Your task to perform on an android device: allow notifications from all sites in the chrome app Image 0: 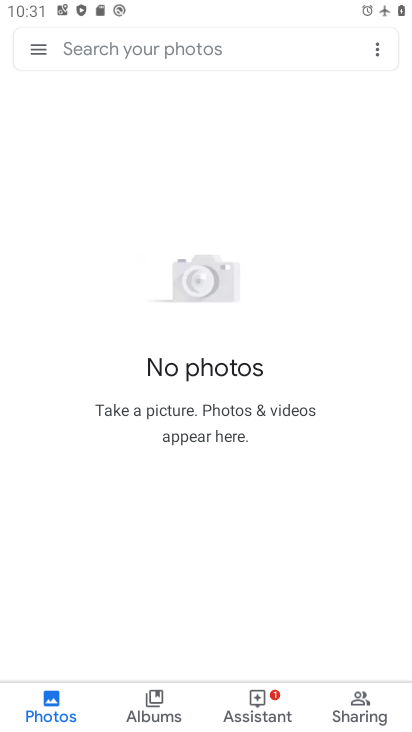
Step 0: press home button
Your task to perform on an android device: allow notifications from all sites in the chrome app Image 1: 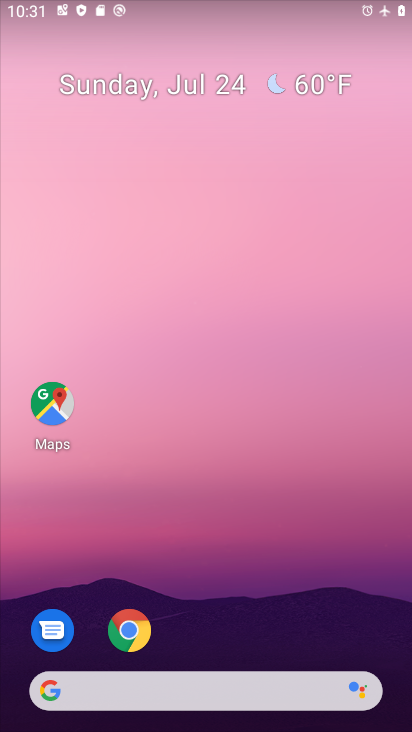
Step 1: click (127, 632)
Your task to perform on an android device: allow notifications from all sites in the chrome app Image 2: 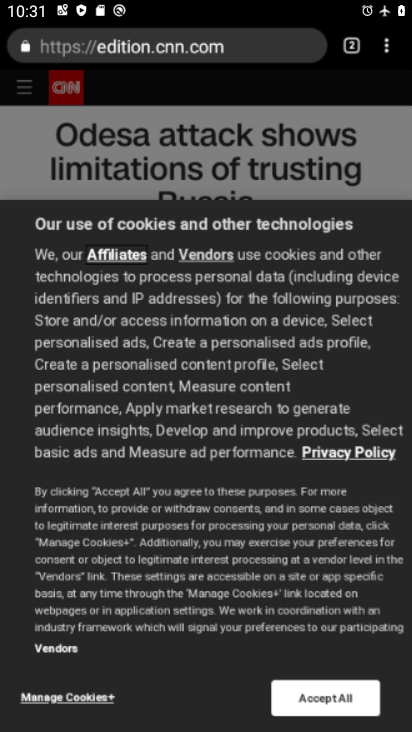
Step 2: click (386, 49)
Your task to perform on an android device: allow notifications from all sites in the chrome app Image 3: 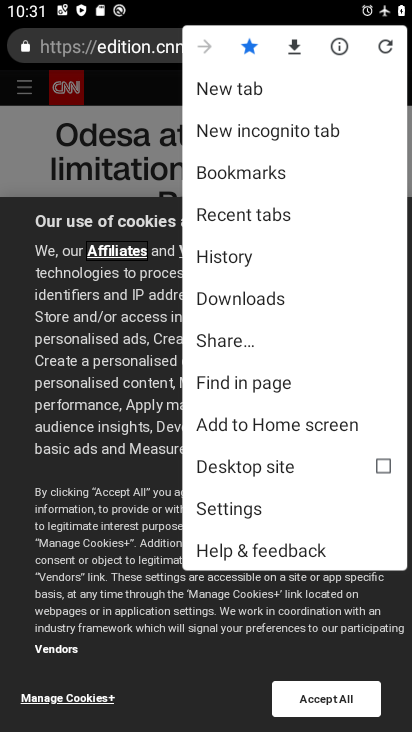
Step 3: click (241, 512)
Your task to perform on an android device: allow notifications from all sites in the chrome app Image 4: 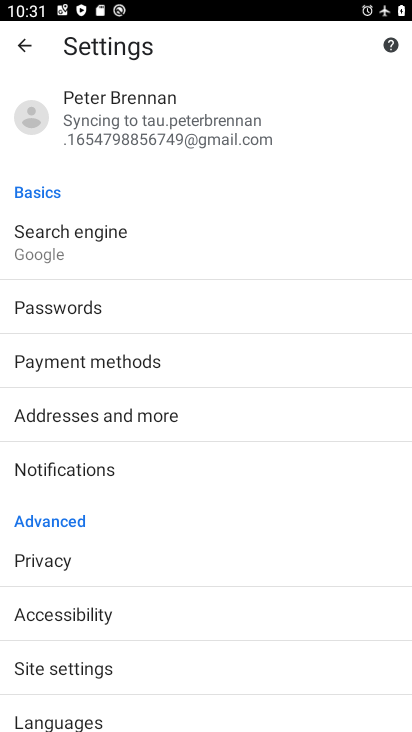
Step 4: click (54, 477)
Your task to perform on an android device: allow notifications from all sites in the chrome app Image 5: 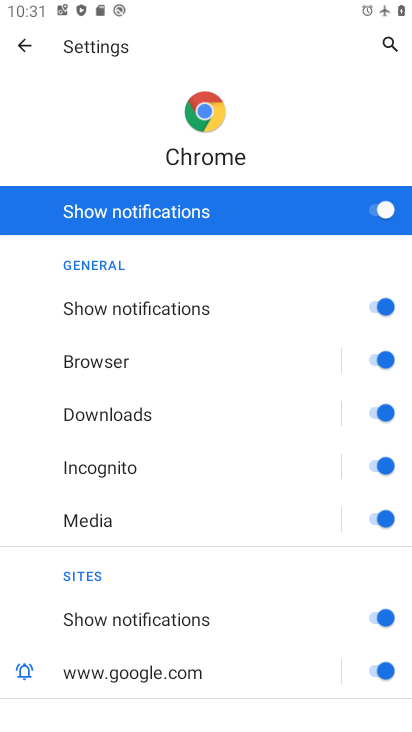
Step 5: task complete